Your task to perform on an android device: Show me productivity apps on the Play Store Image 0: 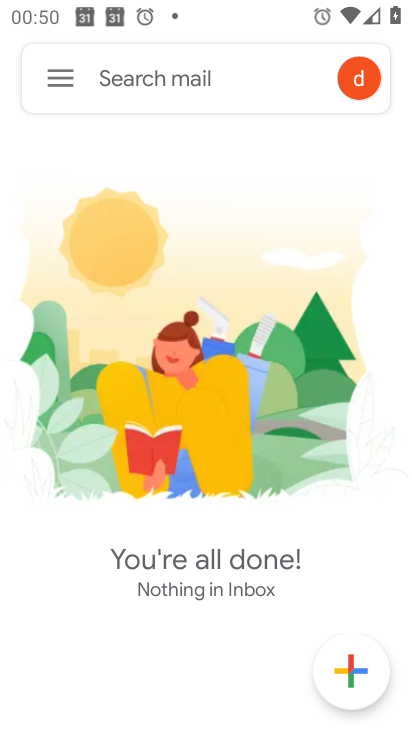
Step 0: press home button
Your task to perform on an android device: Show me productivity apps on the Play Store Image 1: 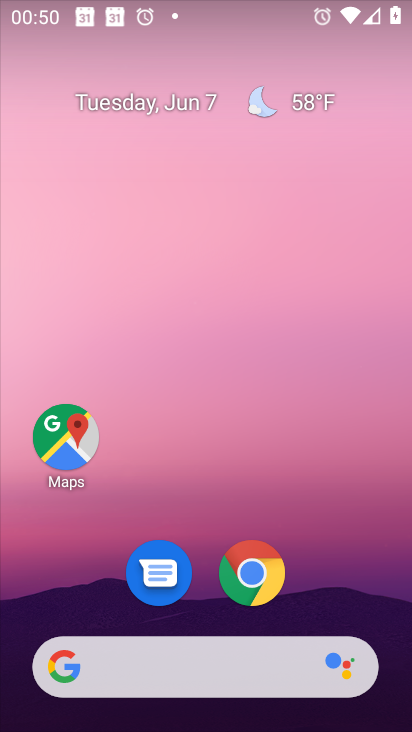
Step 1: drag from (366, 601) to (307, 87)
Your task to perform on an android device: Show me productivity apps on the Play Store Image 2: 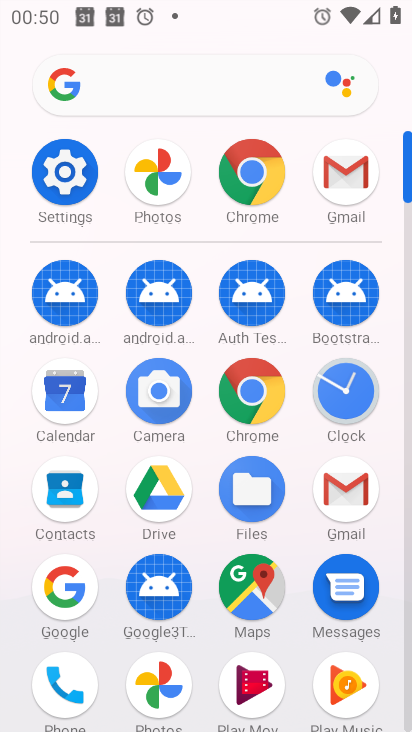
Step 2: drag from (324, 543) to (283, 217)
Your task to perform on an android device: Show me productivity apps on the Play Store Image 3: 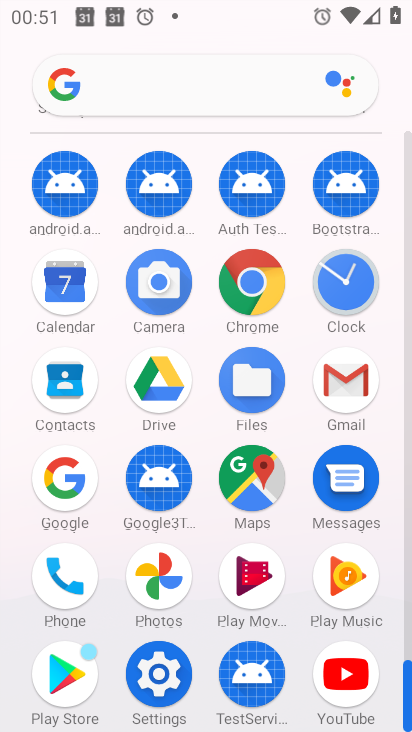
Step 3: click (27, 696)
Your task to perform on an android device: Show me productivity apps on the Play Store Image 4: 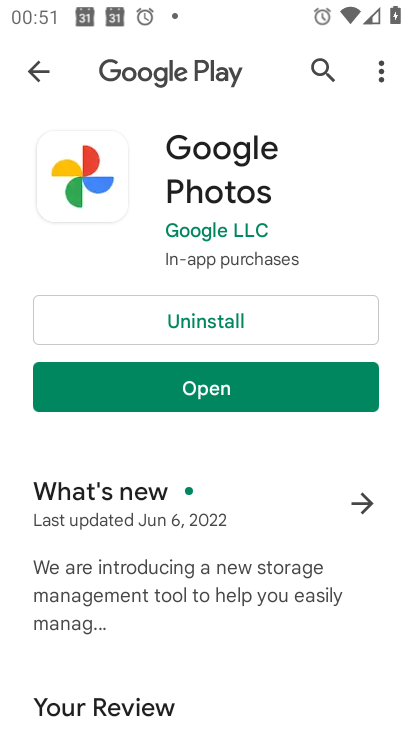
Step 4: click (26, 59)
Your task to perform on an android device: Show me productivity apps on the Play Store Image 5: 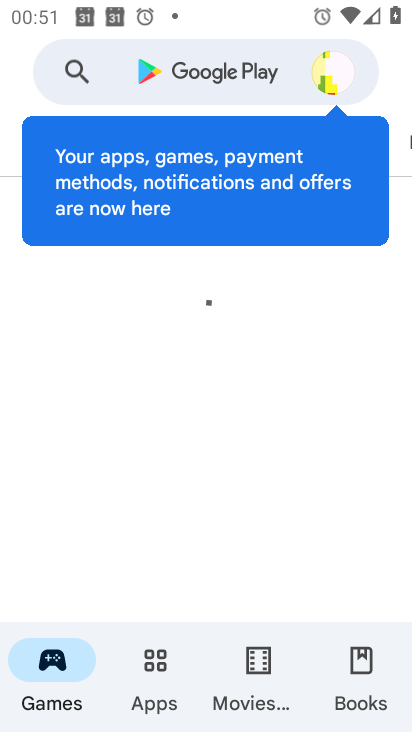
Step 5: click (155, 68)
Your task to perform on an android device: Show me productivity apps on the Play Store Image 6: 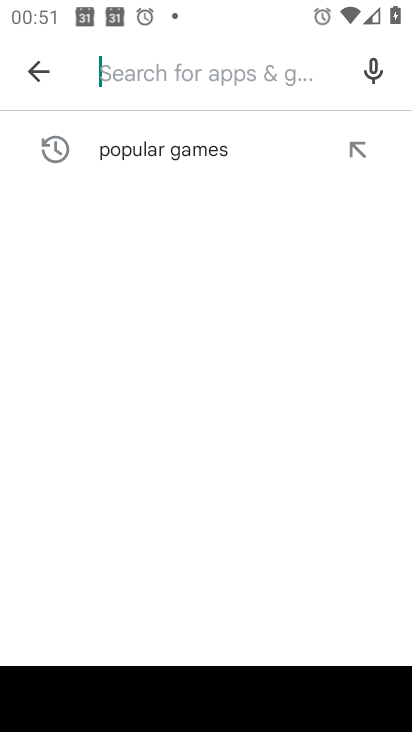
Step 6: type " productivity apps "
Your task to perform on an android device: Show me productivity apps on the Play Store Image 7: 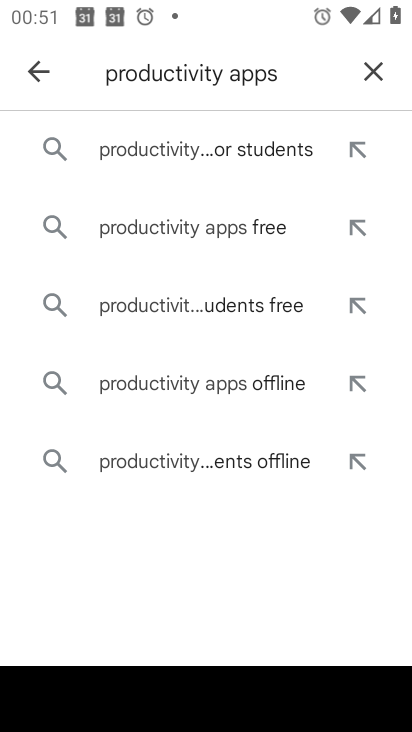
Step 7: click (168, 154)
Your task to perform on an android device: Show me productivity apps on the Play Store Image 8: 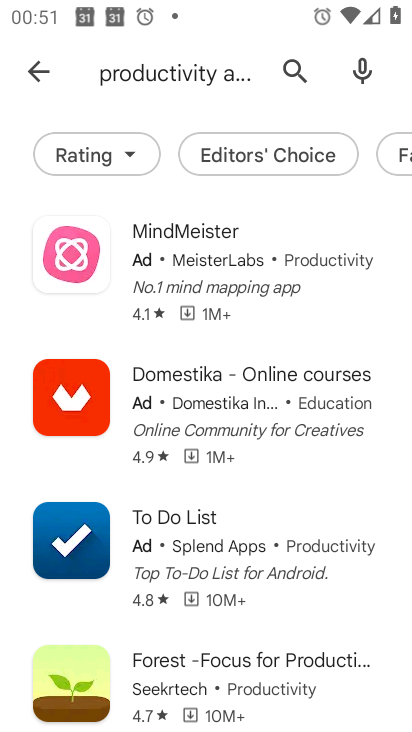
Step 8: task complete